Your task to perform on an android device: open a bookmark in the chrome app Image 0: 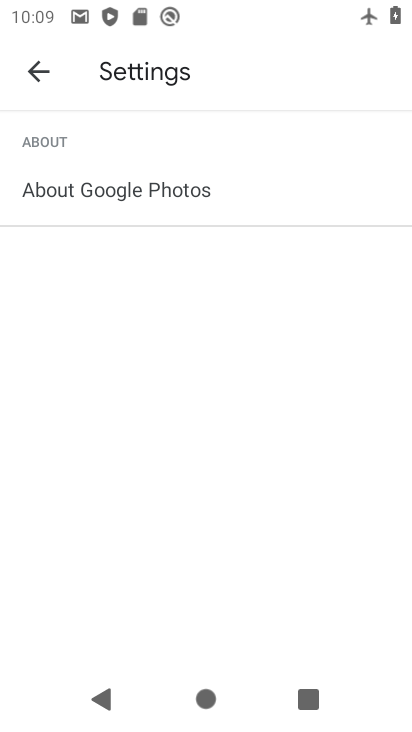
Step 0: press home button
Your task to perform on an android device: open a bookmark in the chrome app Image 1: 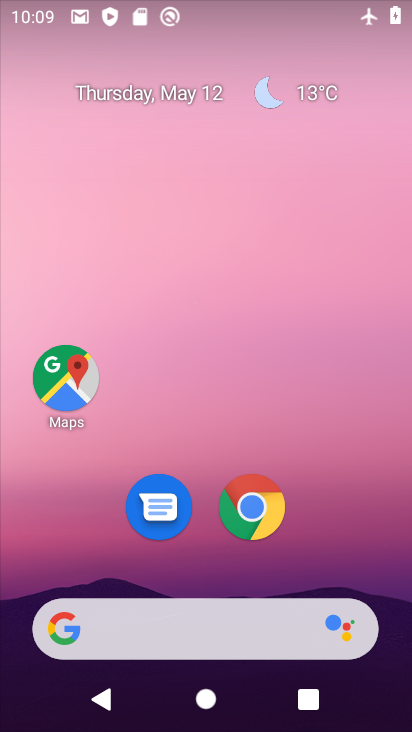
Step 1: drag from (285, 2) to (250, 488)
Your task to perform on an android device: open a bookmark in the chrome app Image 2: 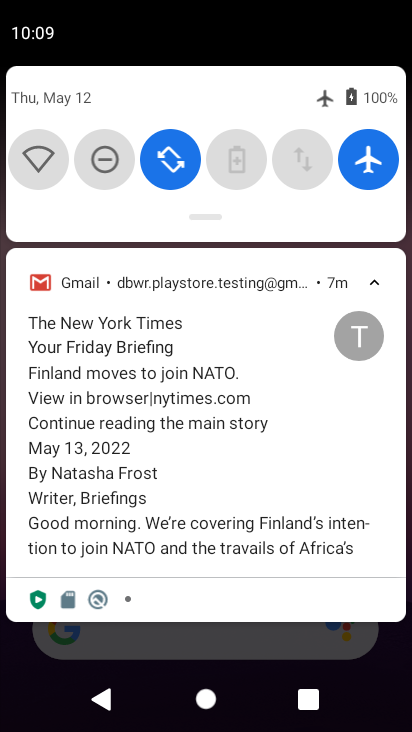
Step 2: click (380, 157)
Your task to perform on an android device: open a bookmark in the chrome app Image 3: 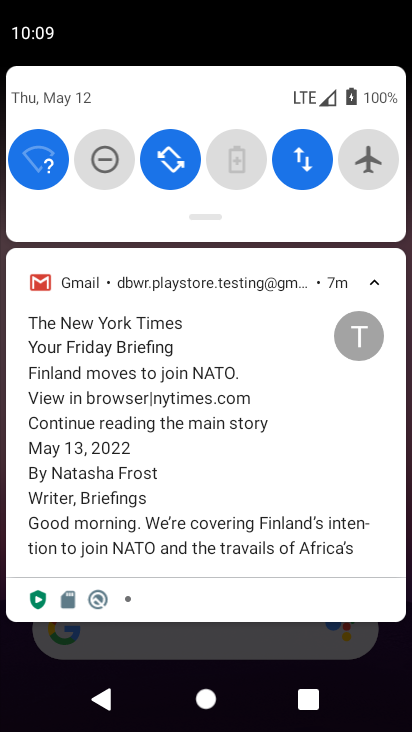
Step 3: drag from (393, 444) to (396, 252)
Your task to perform on an android device: open a bookmark in the chrome app Image 4: 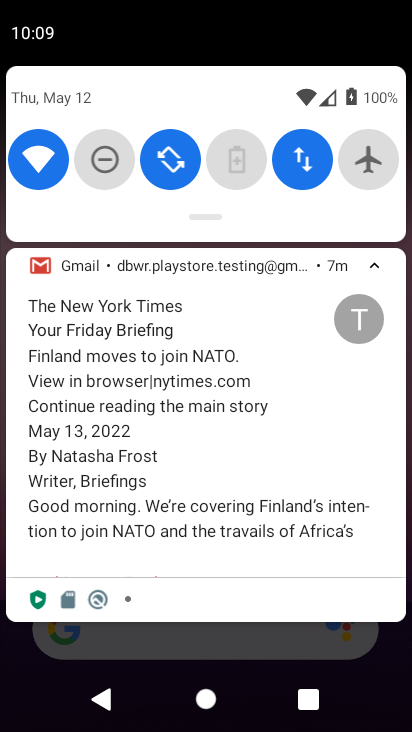
Step 4: click (393, 645)
Your task to perform on an android device: open a bookmark in the chrome app Image 5: 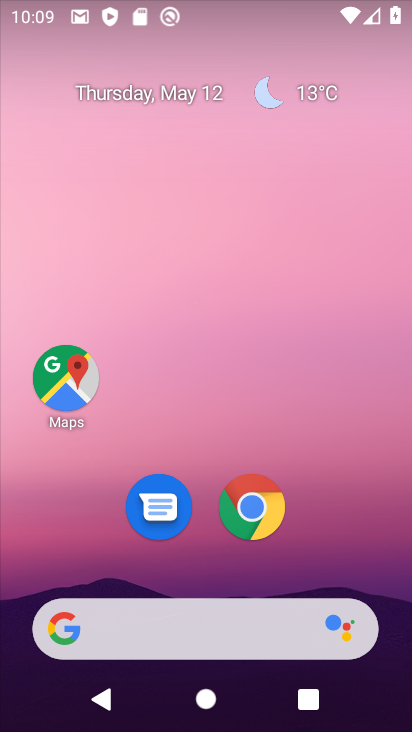
Step 5: click (237, 498)
Your task to perform on an android device: open a bookmark in the chrome app Image 6: 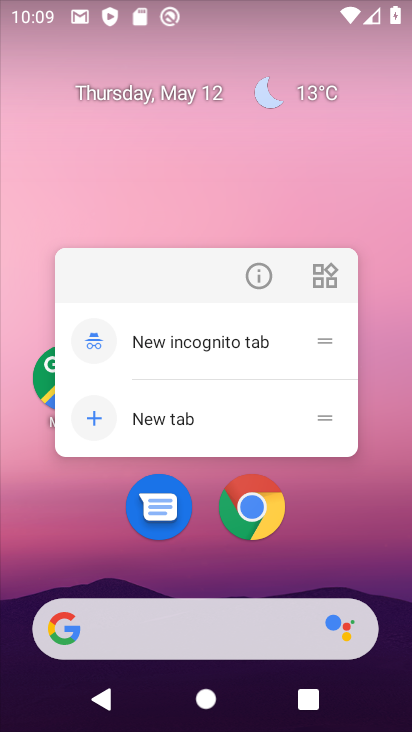
Step 6: click (270, 510)
Your task to perform on an android device: open a bookmark in the chrome app Image 7: 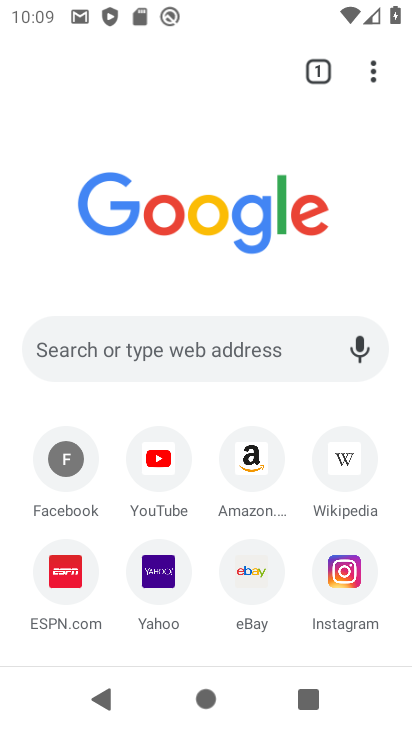
Step 7: task complete